Your task to perform on an android device: turn on the 24-hour format for clock Image 0: 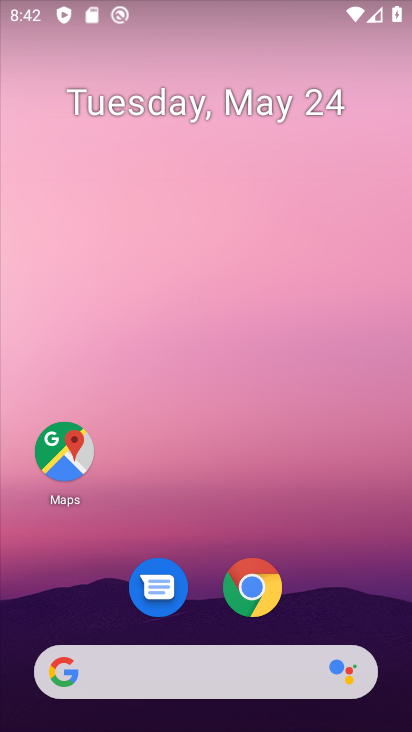
Step 0: drag from (336, 588) to (269, 16)
Your task to perform on an android device: turn on the 24-hour format for clock Image 1: 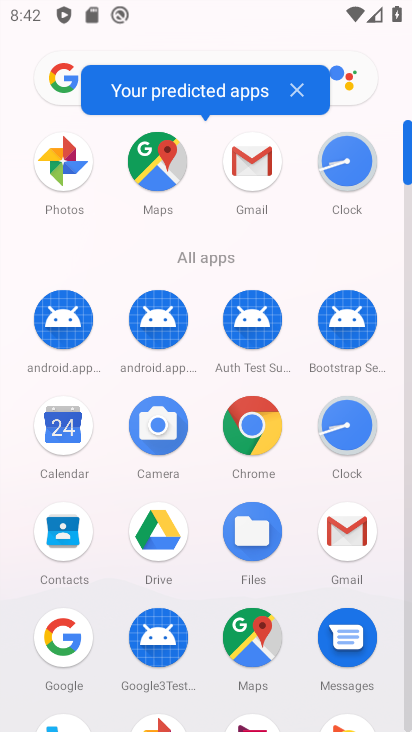
Step 1: drag from (8, 565) to (11, 192)
Your task to perform on an android device: turn on the 24-hour format for clock Image 2: 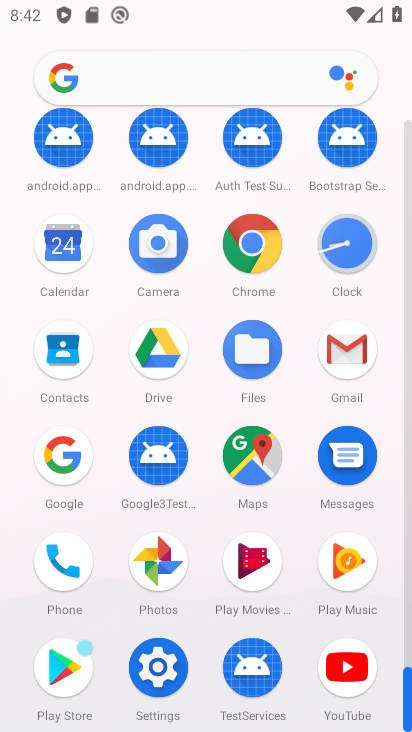
Step 2: click (349, 240)
Your task to perform on an android device: turn on the 24-hour format for clock Image 3: 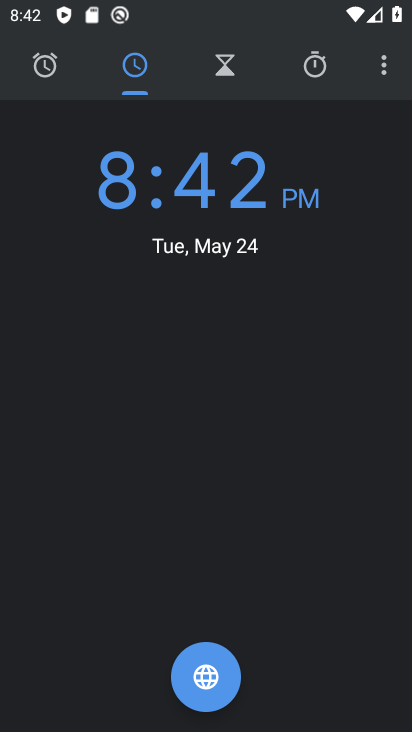
Step 3: drag from (383, 67) to (276, 114)
Your task to perform on an android device: turn on the 24-hour format for clock Image 4: 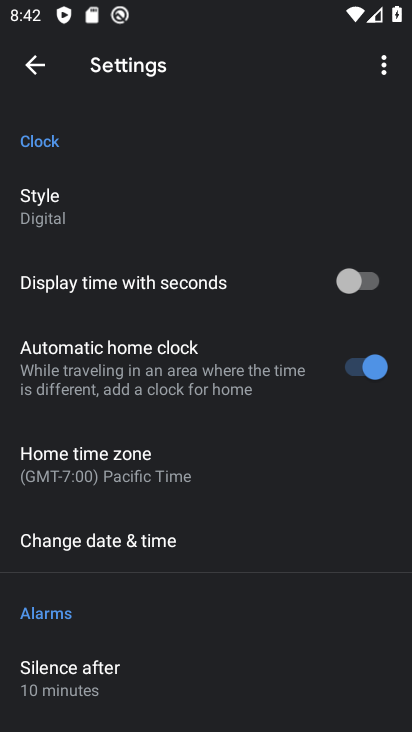
Step 4: click (158, 546)
Your task to perform on an android device: turn on the 24-hour format for clock Image 5: 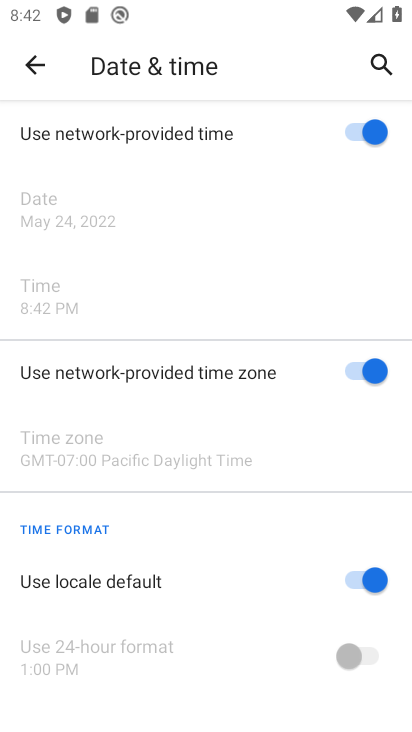
Step 5: drag from (209, 589) to (222, 158)
Your task to perform on an android device: turn on the 24-hour format for clock Image 6: 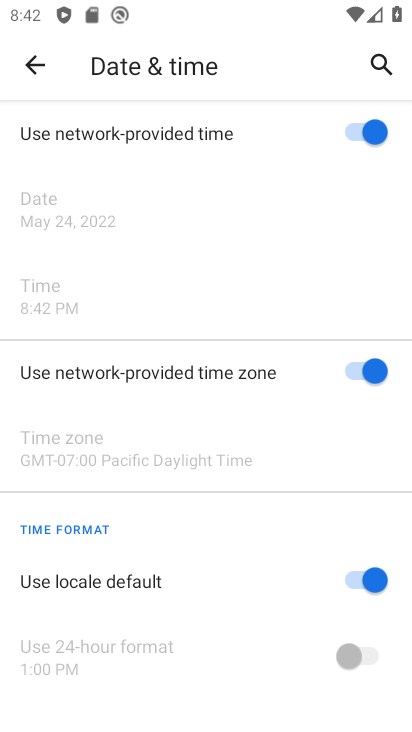
Step 6: click (354, 579)
Your task to perform on an android device: turn on the 24-hour format for clock Image 7: 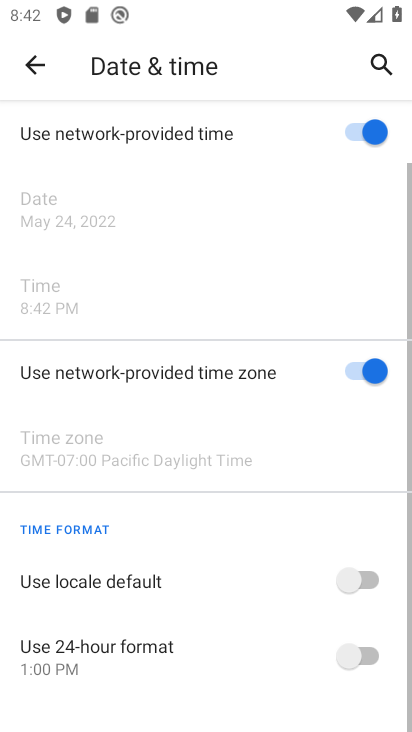
Step 7: click (366, 655)
Your task to perform on an android device: turn on the 24-hour format for clock Image 8: 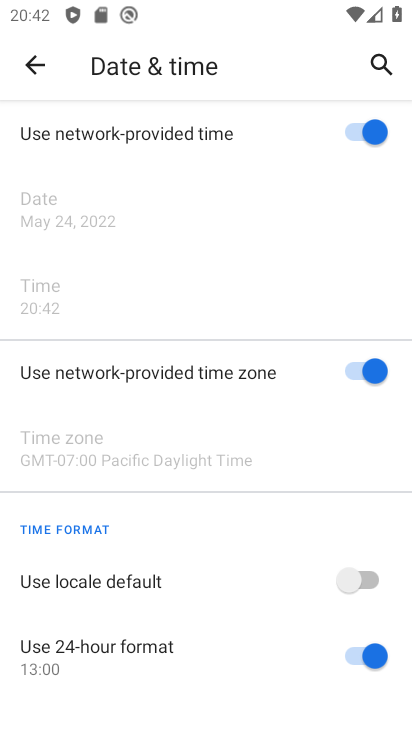
Step 8: task complete